Your task to perform on an android device: stop showing notifications on the lock screen Image 0: 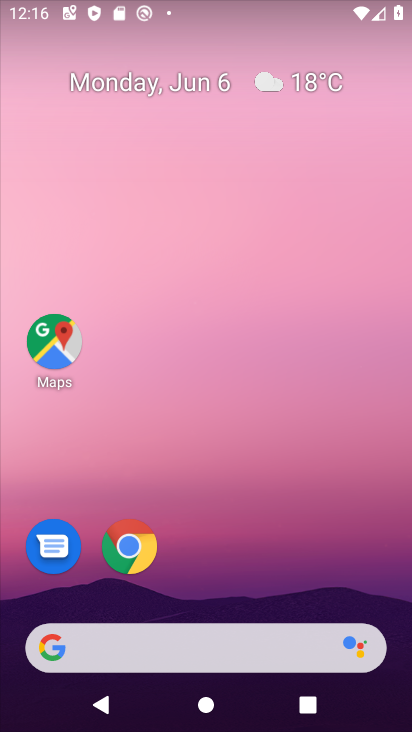
Step 0: drag from (317, 592) to (271, 130)
Your task to perform on an android device: stop showing notifications on the lock screen Image 1: 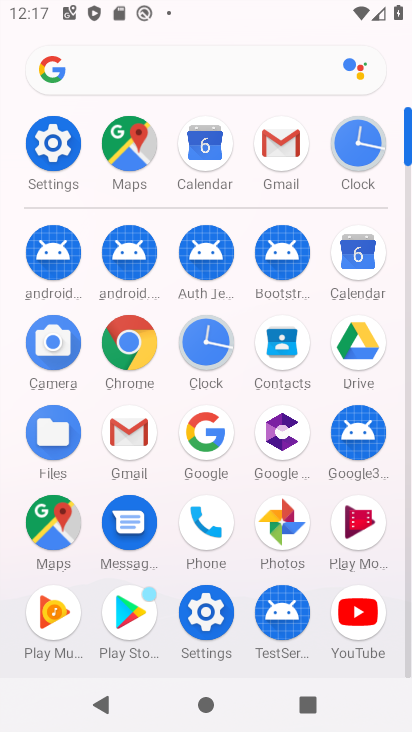
Step 1: click (46, 152)
Your task to perform on an android device: stop showing notifications on the lock screen Image 2: 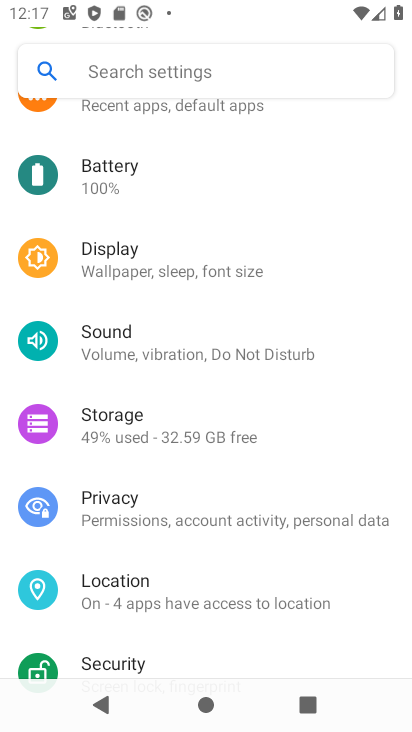
Step 2: drag from (235, 137) to (240, 347)
Your task to perform on an android device: stop showing notifications on the lock screen Image 3: 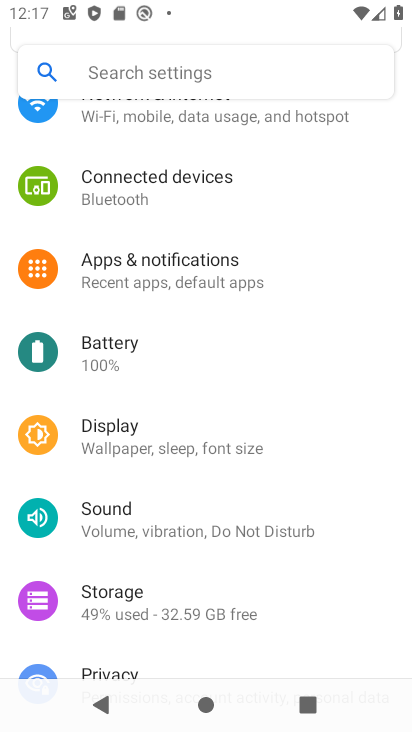
Step 3: click (198, 277)
Your task to perform on an android device: stop showing notifications on the lock screen Image 4: 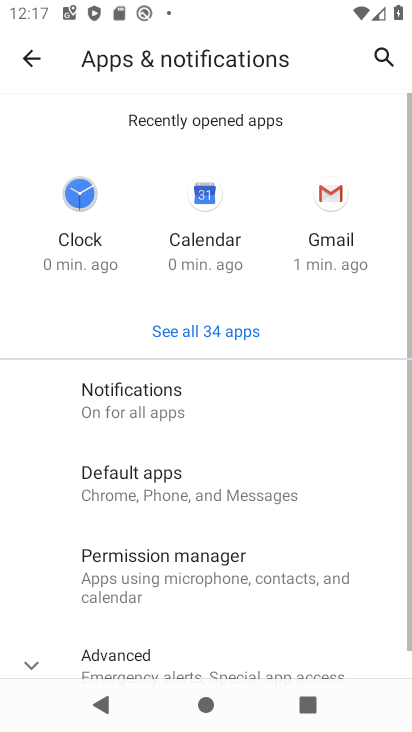
Step 4: drag from (31, 430) to (43, 230)
Your task to perform on an android device: stop showing notifications on the lock screen Image 5: 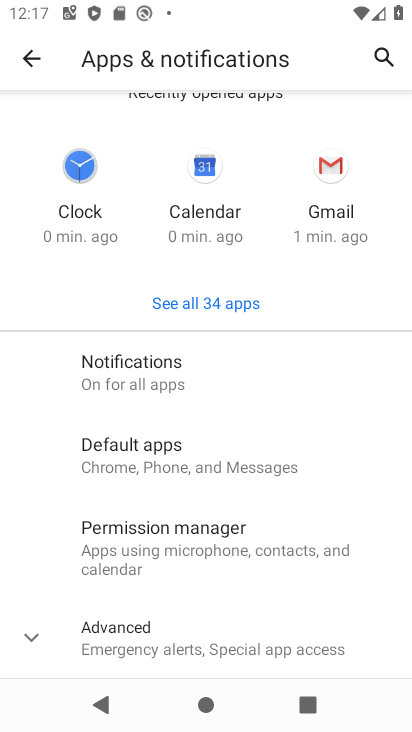
Step 5: click (221, 366)
Your task to perform on an android device: stop showing notifications on the lock screen Image 6: 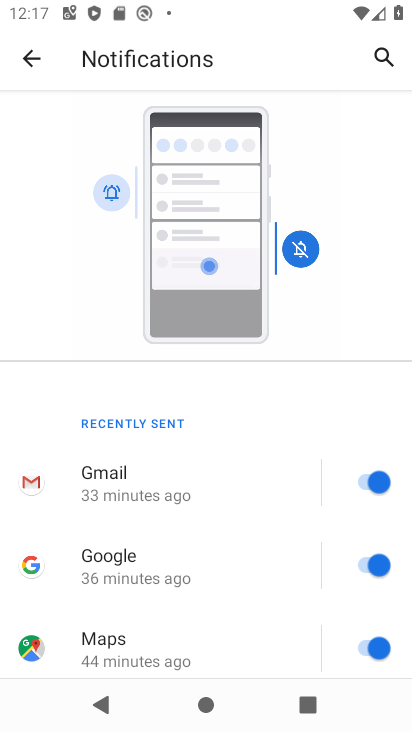
Step 6: drag from (33, 426) to (66, 150)
Your task to perform on an android device: stop showing notifications on the lock screen Image 7: 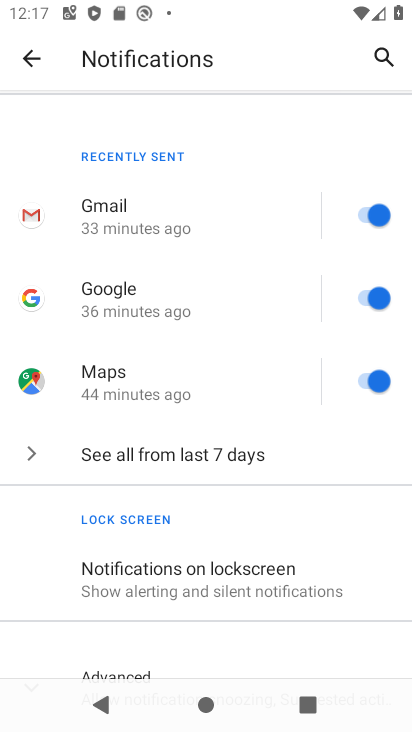
Step 7: drag from (47, 538) to (54, 322)
Your task to perform on an android device: stop showing notifications on the lock screen Image 8: 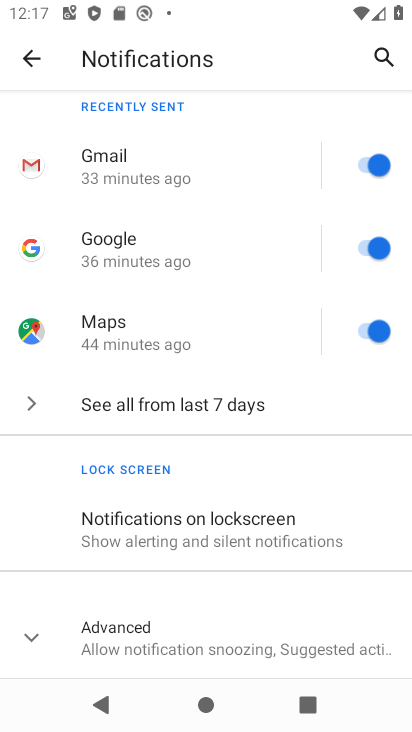
Step 8: click (184, 526)
Your task to perform on an android device: stop showing notifications on the lock screen Image 9: 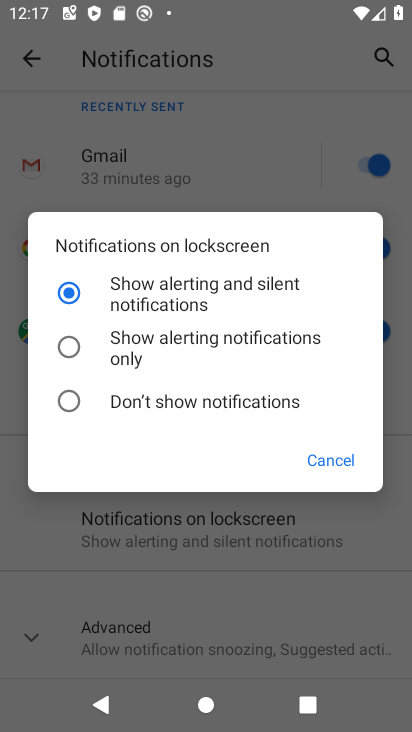
Step 9: click (63, 406)
Your task to perform on an android device: stop showing notifications on the lock screen Image 10: 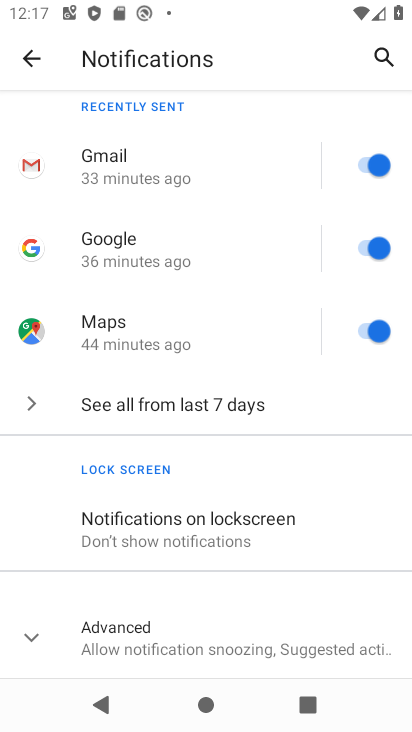
Step 10: task complete